Your task to perform on an android device: Show the shopping cart on walmart. Search for rayovac triple a on walmart, select the first entry, add it to the cart, then select checkout. Image 0: 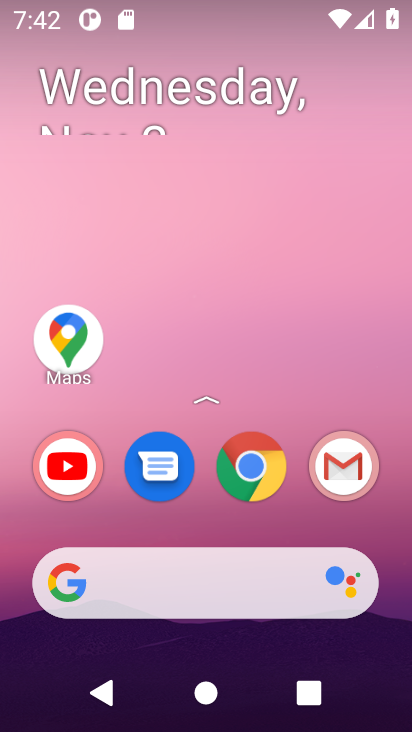
Step 0: click (225, 591)
Your task to perform on an android device: Show the shopping cart on walmart. Search for rayovac triple a on walmart, select the first entry, add it to the cart, then select checkout. Image 1: 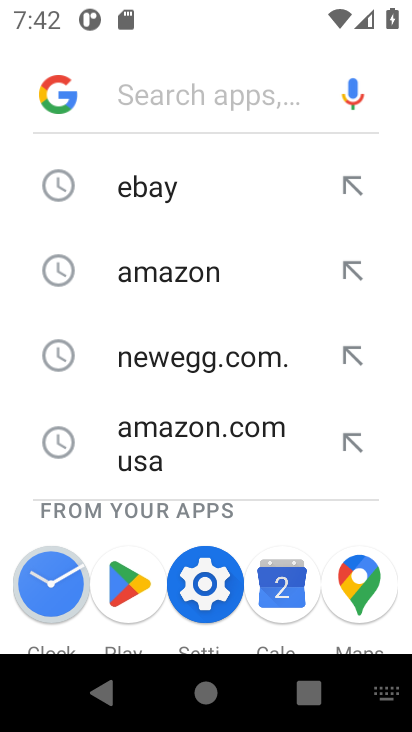
Step 1: type "walmart"
Your task to perform on an android device: Show the shopping cart on walmart. Search for rayovac triple a on walmart, select the first entry, add it to the cart, then select checkout. Image 2: 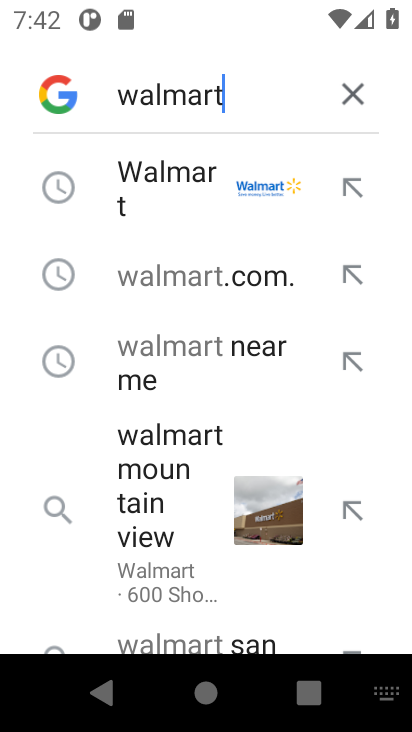
Step 2: type ""
Your task to perform on an android device: Show the shopping cart on walmart. Search for rayovac triple a on walmart, select the first entry, add it to the cart, then select checkout. Image 3: 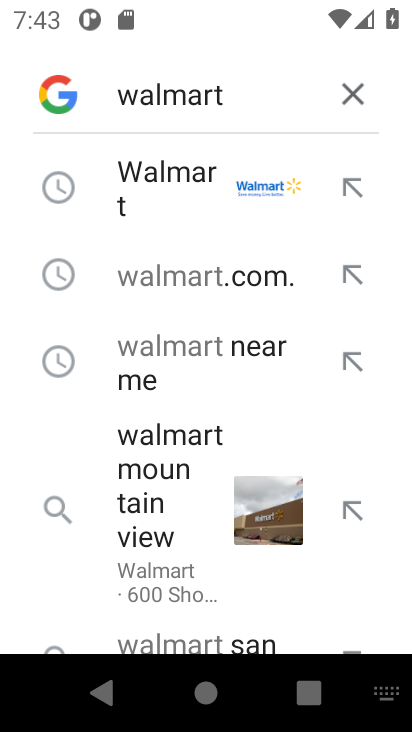
Step 3: click (145, 189)
Your task to perform on an android device: Show the shopping cart on walmart. Search for rayovac triple a on walmart, select the first entry, add it to the cart, then select checkout. Image 4: 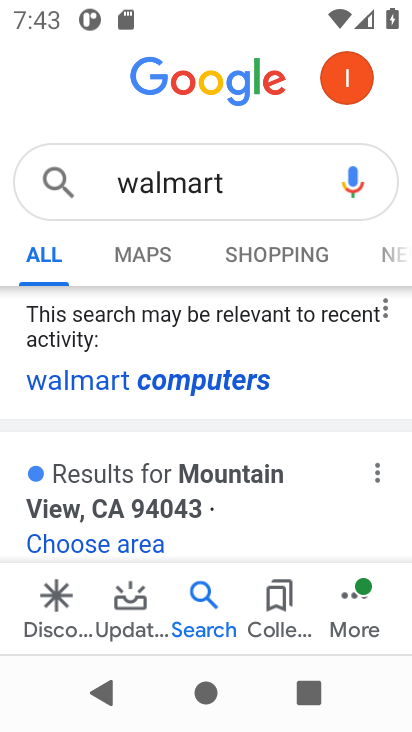
Step 4: drag from (314, 533) to (326, 350)
Your task to perform on an android device: Show the shopping cart on walmart. Search for rayovac triple a on walmart, select the first entry, add it to the cart, then select checkout. Image 5: 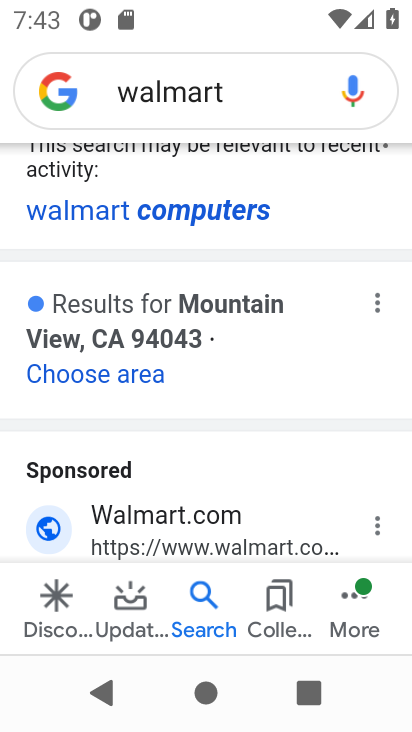
Step 5: click (153, 532)
Your task to perform on an android device: Show the shopping cart on walmart. Search for rayovac triple a on walmart, select the first entry, add it to the cart, then select checkout. Image 6: 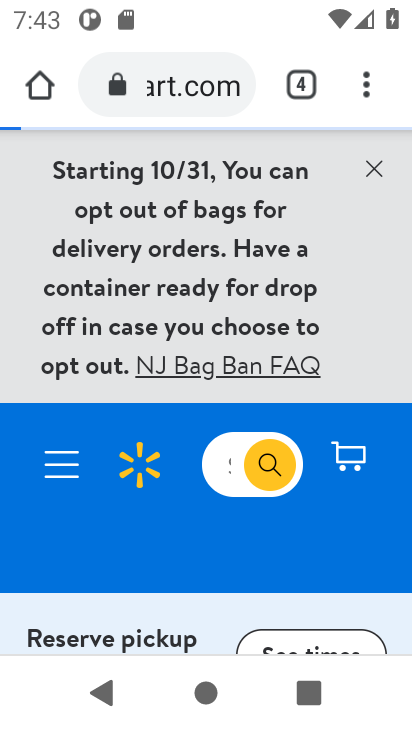
Step 6: click (223, 477)
Your task to perform on an android device: Show the shopping cart on walmart. Search for rayovac triple a on walmart, select the first entry, add it to the cart, then select checkout. Image 7: 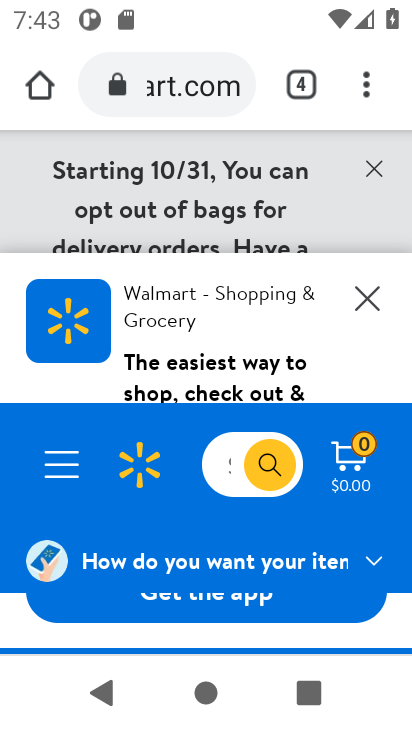
Step 7: click (263, 470)
Your task to perform on an android device: Show the shopping cart on walmart. Search for rayovac triple a on walmart, select the first entry, add it to the cart, then select checkout. Image 8: 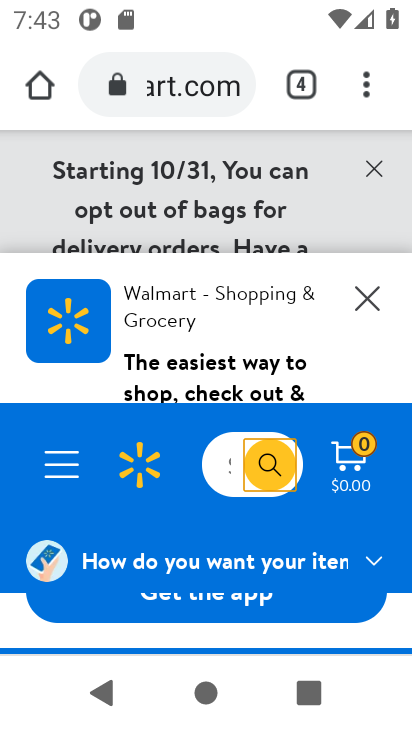
Step 8: click (233, 463)
Your task to perform on an android device: Show the shopping cart on walmart. Search for rayovac triple a on walmart, select the first entry, add it to the cart, then select checkout. Image 9: 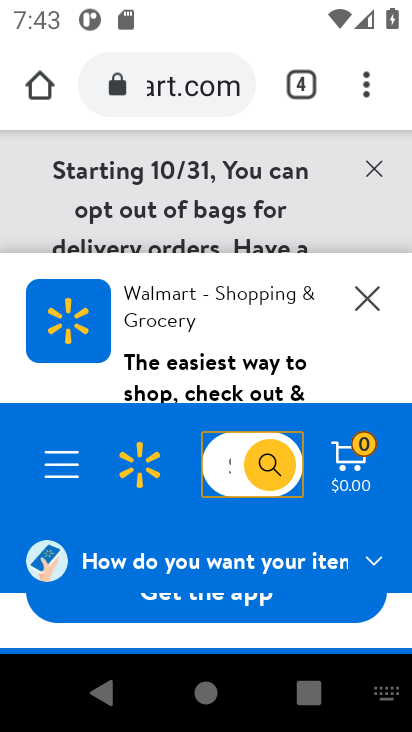
Step 9: type "rayovac triple a"
Your task to perform on an android device: Show the shopping cart on walmart. Search for rayovac triple a on walmart, select the first entry, add it to the cart, then select checkout. Image 10: 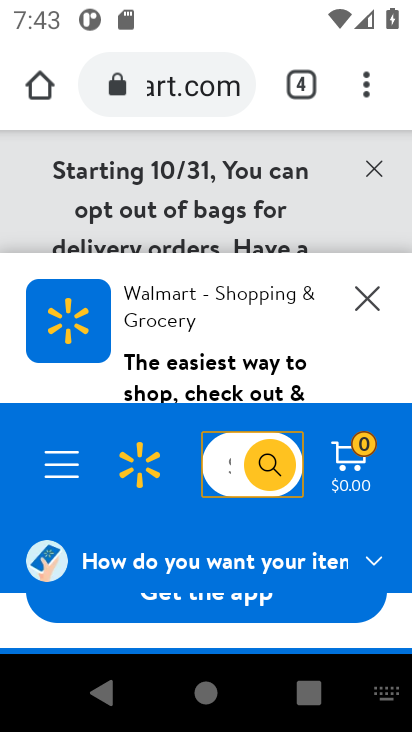
Step 10: type ""
Your task to perform on an android device: Show the shopping cart on walmart. Search for rayovac triple a on walmart, select the first entry, add it to the cart, then select checkout. Image 11: 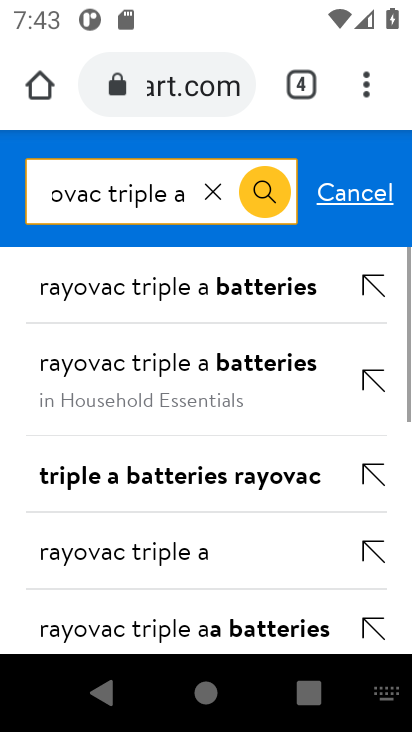
Step 11: click (252, 180)
Your task to perform on an android device: Show the shopping cart on walmart. Search for rayovac triple a on walmart, select the first entry, add it to the cart, then select checkout. Image 12: 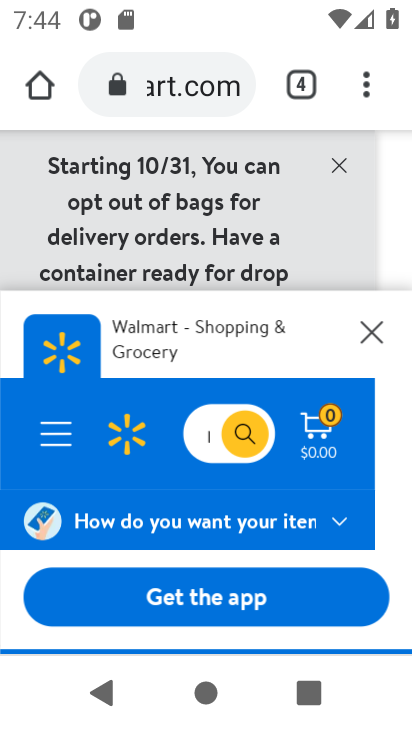
Step 12: drag from (230, 580) to (224, 248)
Your task to perform on an android device: Show the shopping cart on walmart. Search for rayovac triple a on walmart, select the first entry, add it to the cart, then select checkout. Image 13: 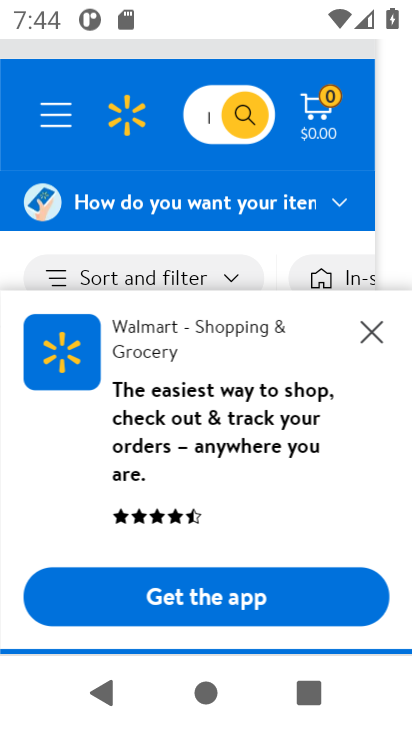
Step 13: click (374, 311)
Your task to perform on an android device: Show the shopping cart on walmart. Search for rayovac triple a on walmart, select the first entry, add it to the cart, then select checkout. Image 14: 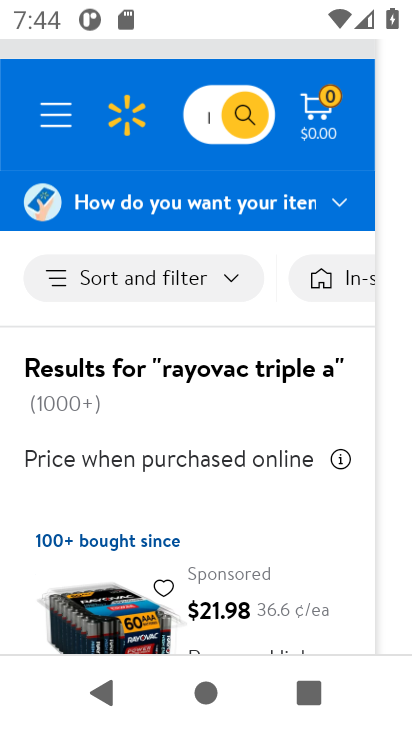
Step 14: drag from (309, 519) to (294, 226)
Your task to perform on an android device: Show the shopping cart on walmart. Search for rayovac triple a on walmart, select the first entry, add it to the cart, then select checkout. Image 15: 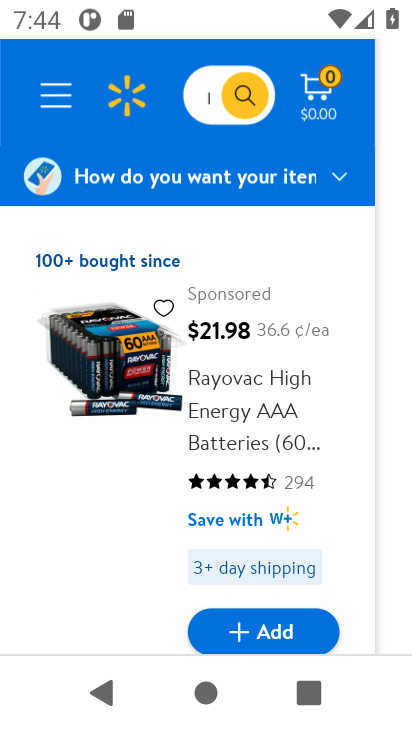
Step 15: click (246, 632)
Your task to perform on an android device: Show the shopping cart on walmart. Search for rayovac triple a on walmart, select the first entry, add it to the cart, then select checkout. Image 16: 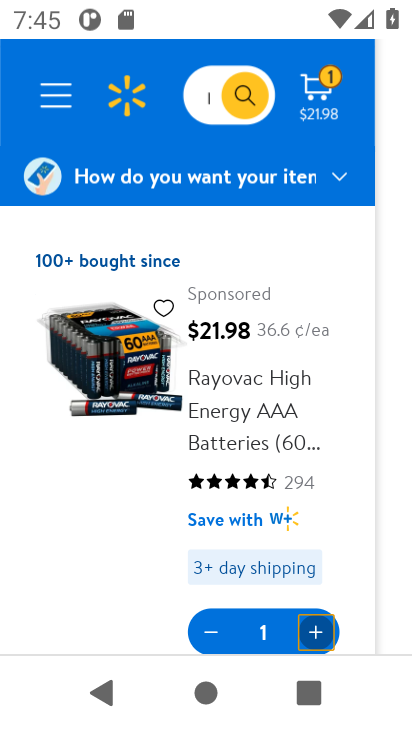
Step 16: task complete